Your task to perform on an android device: turn off improve location accuracy Image 0: 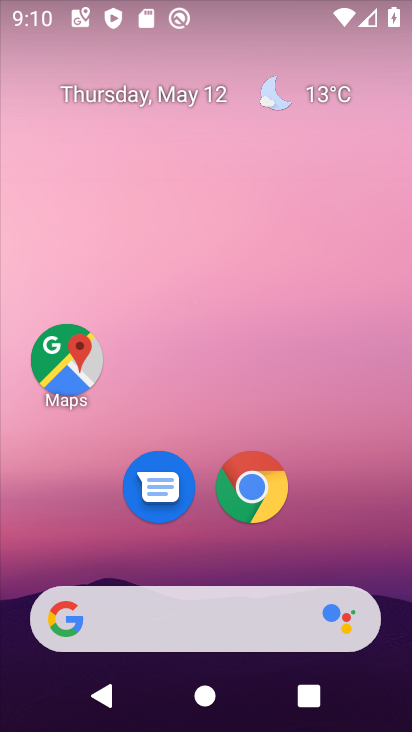
Step 0: drag from (204, 569) to (240, 40)
Your task to perform on an android device: turn off improve location accuracy Image 1: 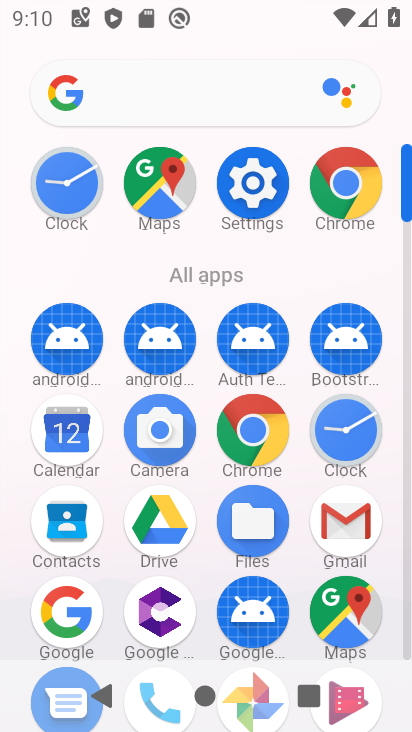
Step 1: click (248, 172)
Your task to perform on an android device: turn off improve location accuracy Image 2: 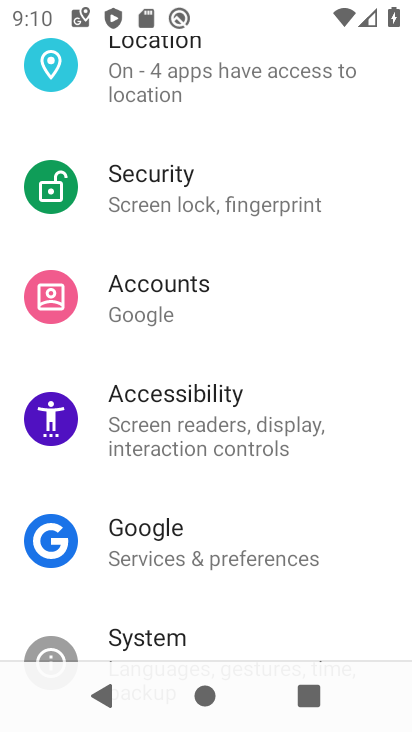
Step 2: drag from (170, 478) to (253, 204)
Your task to perform on an android device: turn off improve location accuracy Image 3: 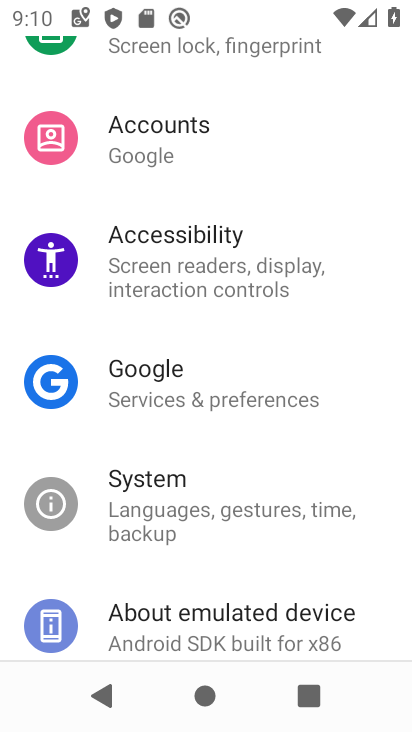
Step 3: drag from (253, 204) to (143, 632)
Your task to perform on an android device: turn off improve location accuracy Image 4: 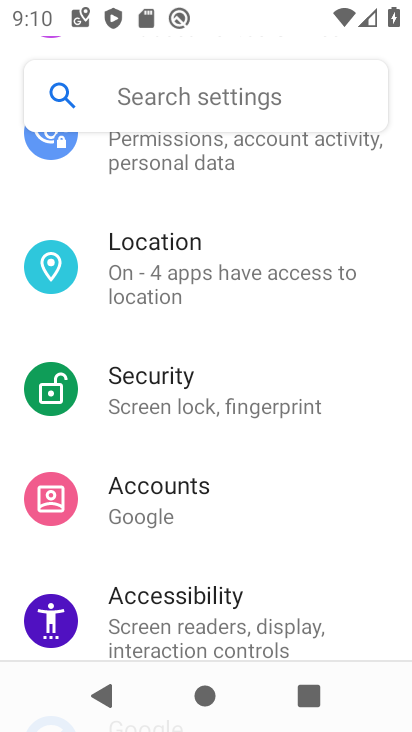
Step 4: click (191, 272)
Your task to perform on an android device: turn off improve location accuracy Image 5: 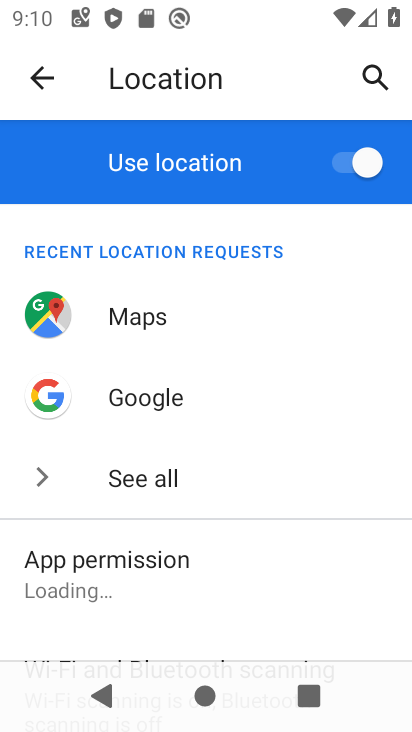
Step 5: drag from (180, 556) to (193, 170)
Your task to perform on an android device: turn off improve location accuracy Image 6: 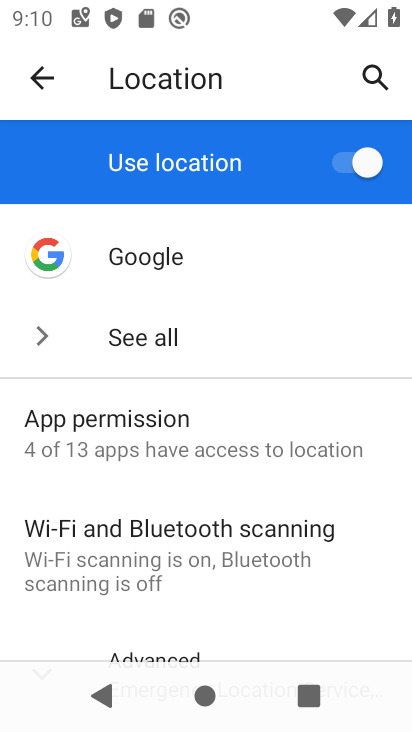
Step 6: drag from (94, 550) to (246, 97)
Your task to perform on an android device: turn off improve location accuracy Image 7: 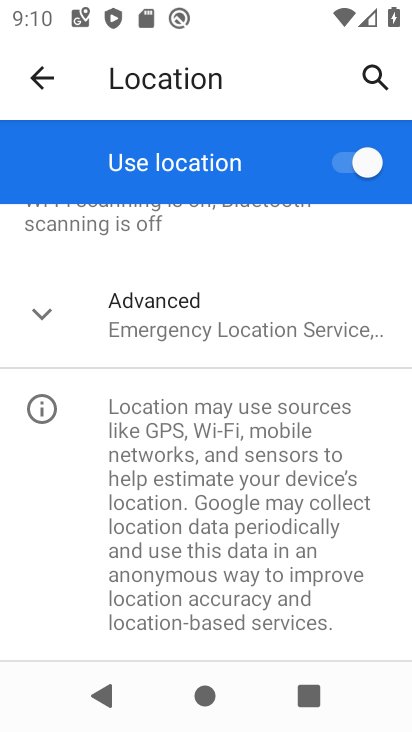
Step 7: click (270, 350)
Your task to perform on an android device: turn off improve location accuracy Image 8: 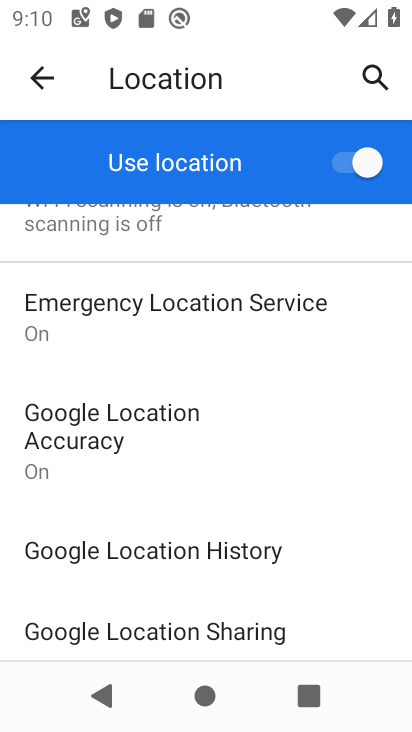
Step 8: click (169, 454)
Your task to perform on an android device: turn off improve location accuracy Image 9: 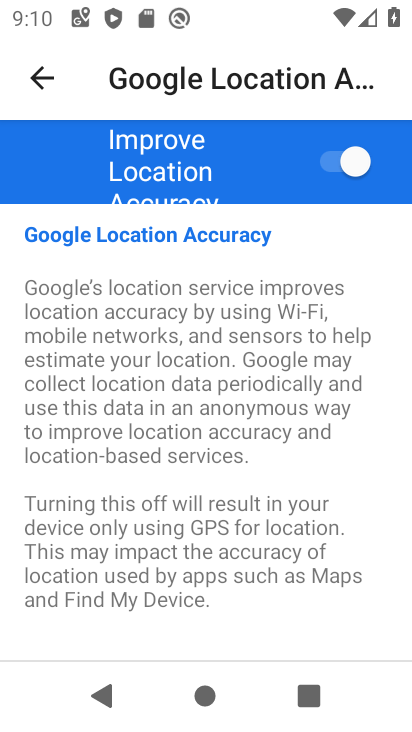
Step 9: click (328, 169)
Your task to perform on an android device: turn off improve location accuracy Image 10: 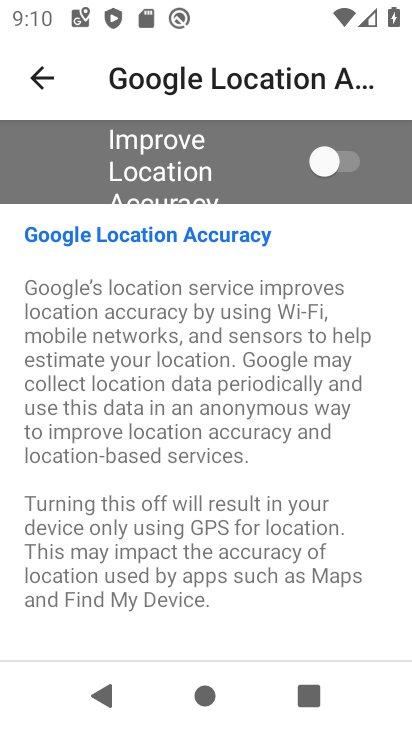
Step 10: task complete